Your task to perform on an android device: turn off airplane mode Image 0: 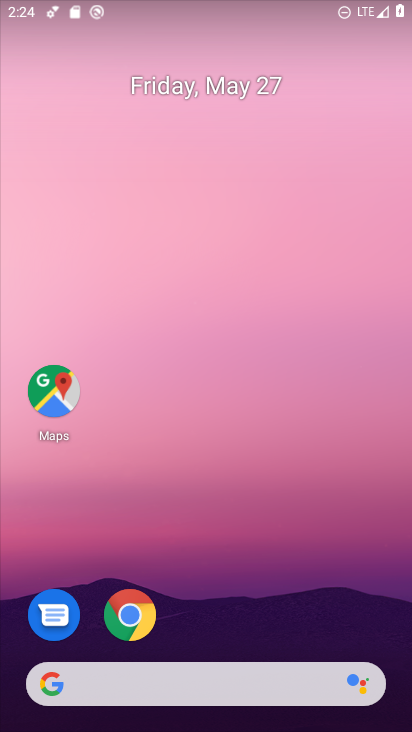
Step 0: drag from (210, 553) to (200, 164)
Your task to perform on an android device: turn off airplane mode Image 1: 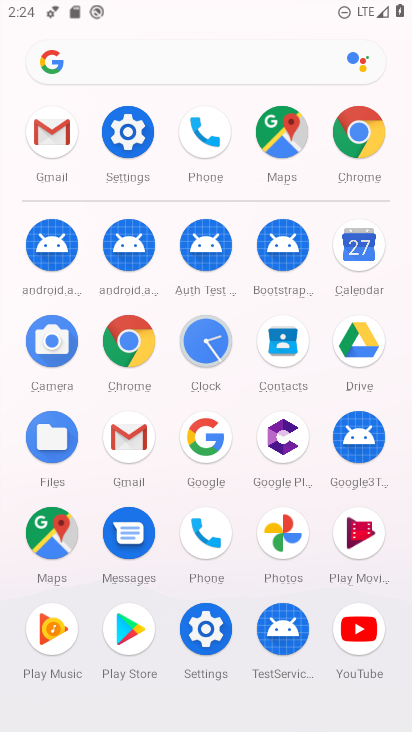
Step 1: click (200, 633)
Your task to perform on an android device: turn off airplane mode Image 2: 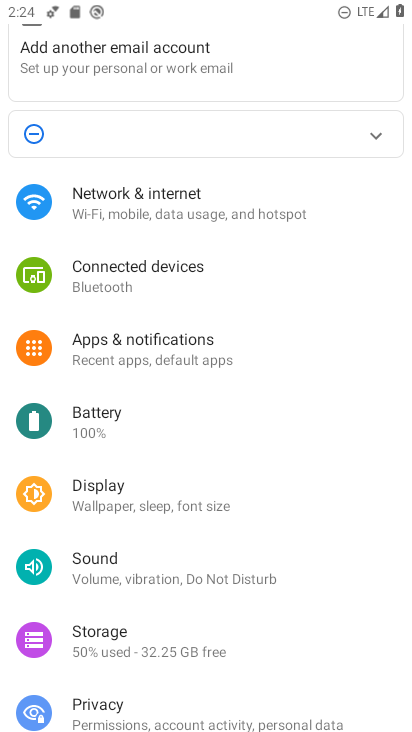
Step 2: drag from (156, 179) to (237, 717)
Your task to perform on an android device: turn off airplane mode Image 3: 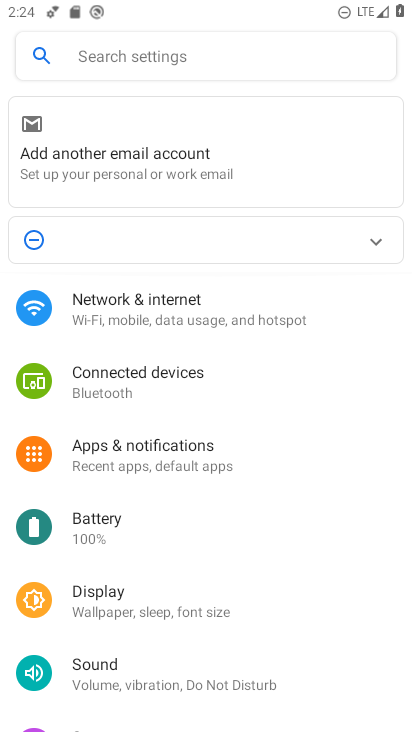
Step 3: click (176, 336)
Your task to perform on an android device: turn off airplane mode Image 4: 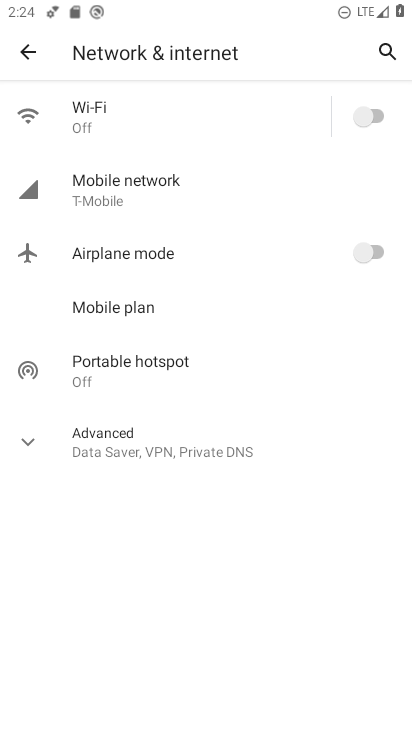
Step 4: task complete